Your task to perform on an android device: toggle javascript in the chrome app Image 0: 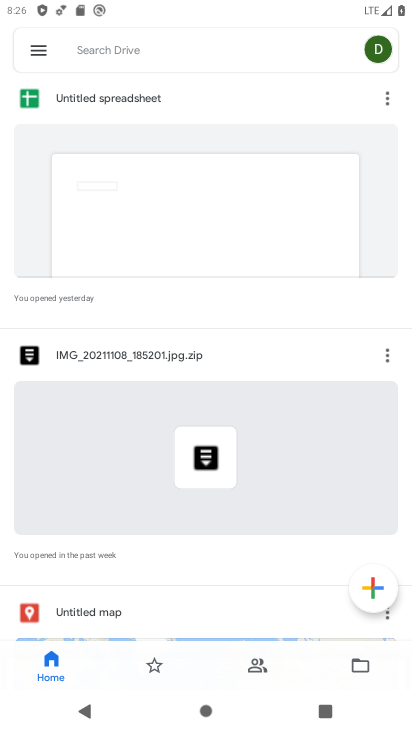
Step 0: press home button
Your task to perform on an android device: toggle javascript in the chrome app Image 1: 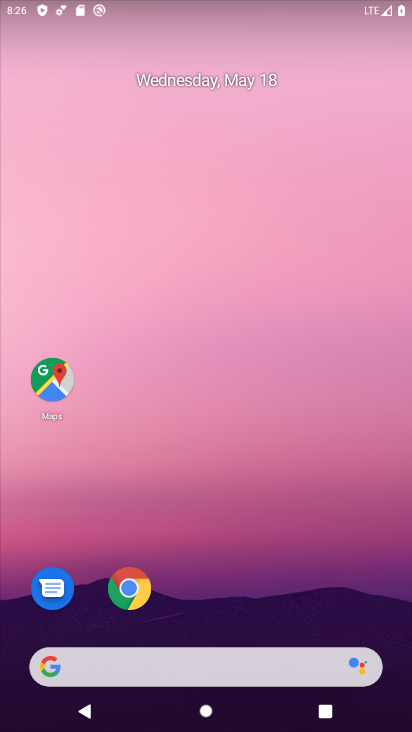
Step 1: click (347, 602)
Your task to perform on an android device: toggle javascript in the chrome app Image 2: 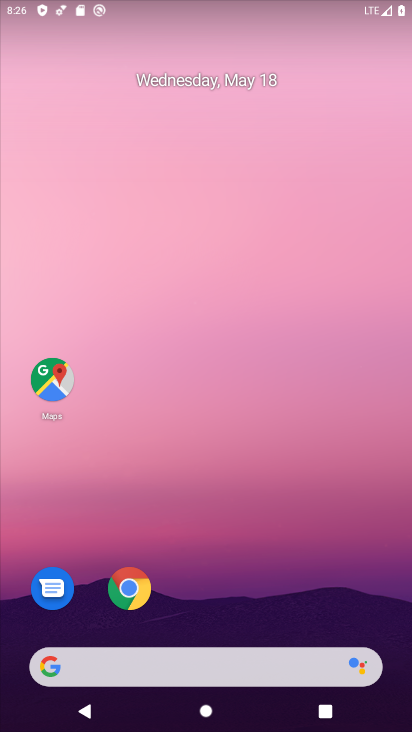
Step 2: click (134, 593)
Your task to perform on an android device: toggle javascript in the chrome app Image 3: 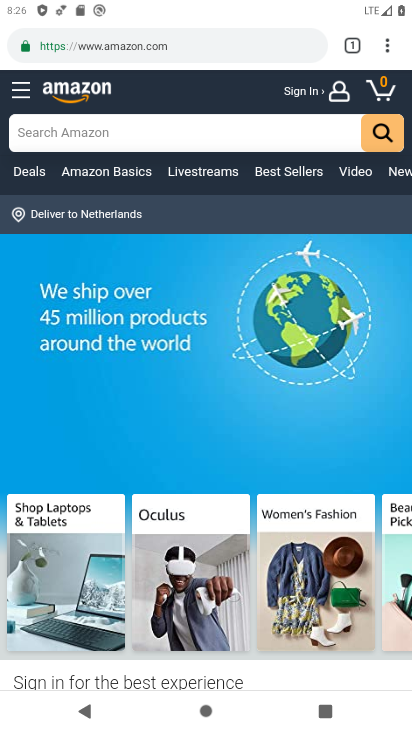
Step 3: click (386, 44)
Your task to perform on an android device: toggle javascript in the chrome app Image 4: 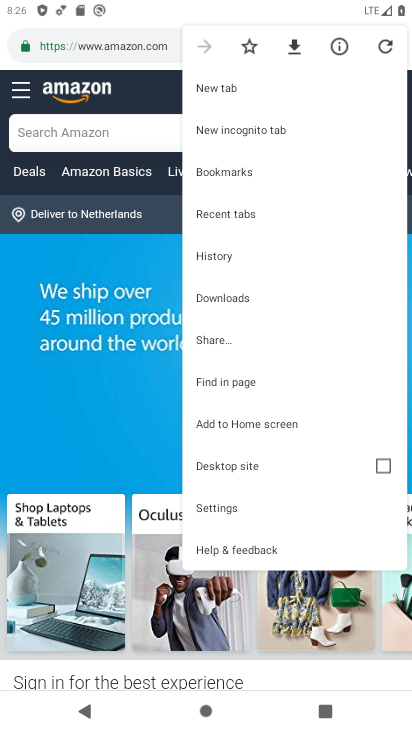
Step 4: click (208, 500)
Your task to perform on an android device: toggle javascript in the chrome app Image 5: 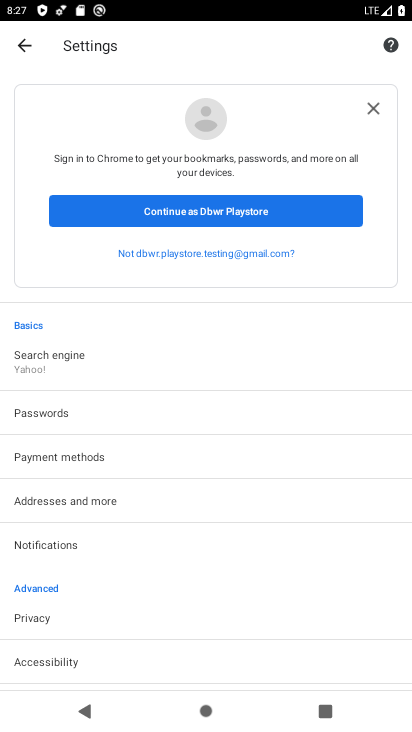
Step 5: drag from (228, 602) to (198, 214)
Your task to perform on an android device: toggle javascript in the chrome app Image 6: 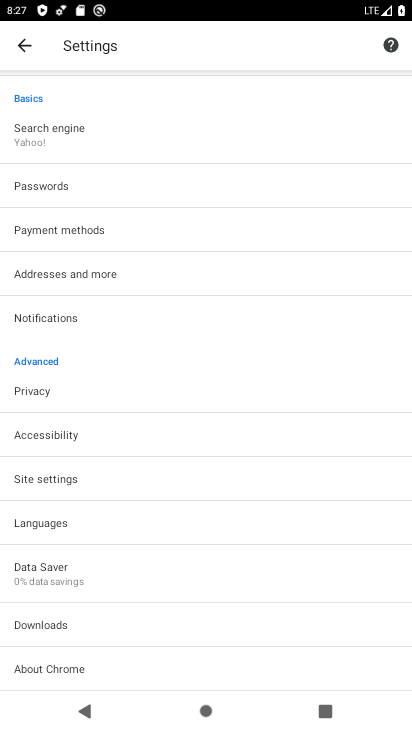
Step 6: click (34, 478)
Your task to perform on an android device: toggle javascript in the chrome app Image 7: 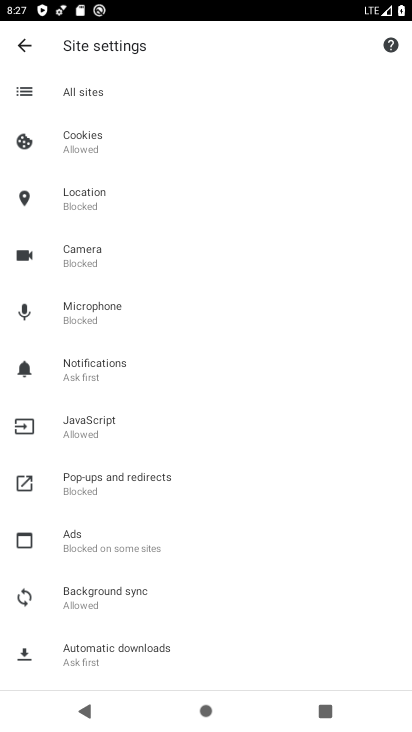
Step 7: click (82, 429)
Your task to perform on an android device: toggle javascript in the chrome app Image 8: 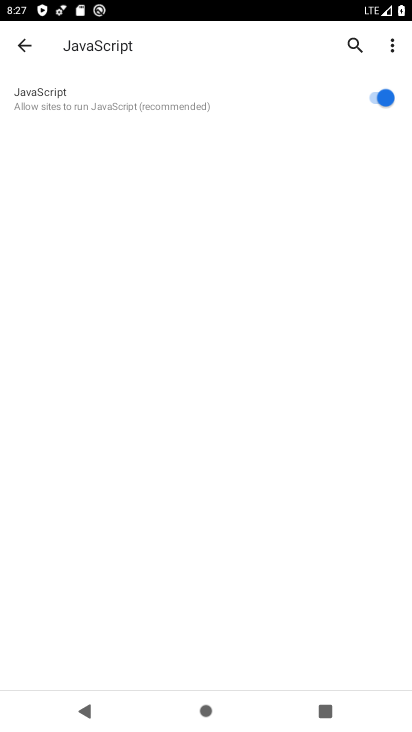
Step 8: click (382, 103)
Your task to perform on an android device: toggle javascript in the chrome app Image 9: 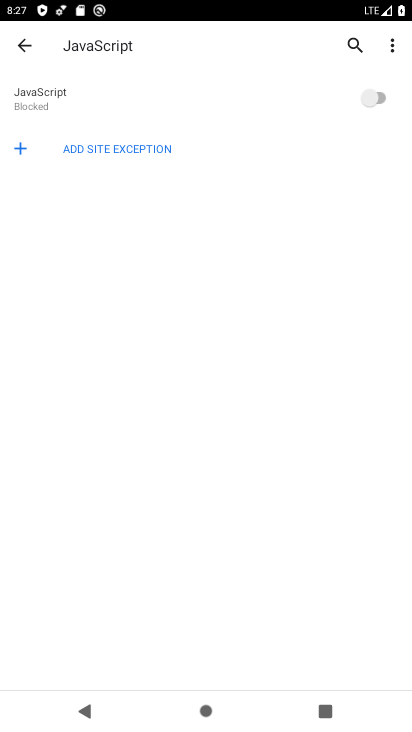
Step 9: task complete